Your task to perform on an android device: open app "Venmo" Image 0: 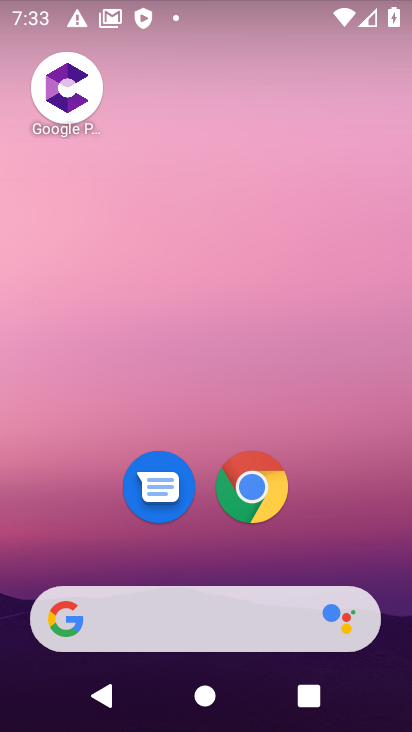
Step 0: drag from (373, 511) to (372, 69)
Your task to perform on an android device: open app "Venmo" Image 1: 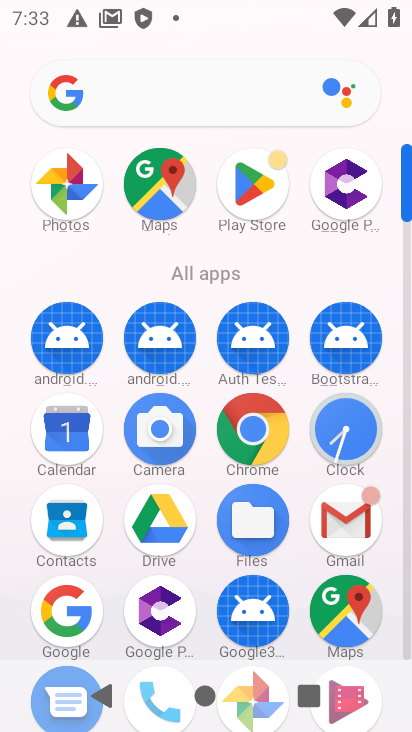
Step 1: click (250, 175)
Your task to perform on an android device: open app "Venmo" Image 2: 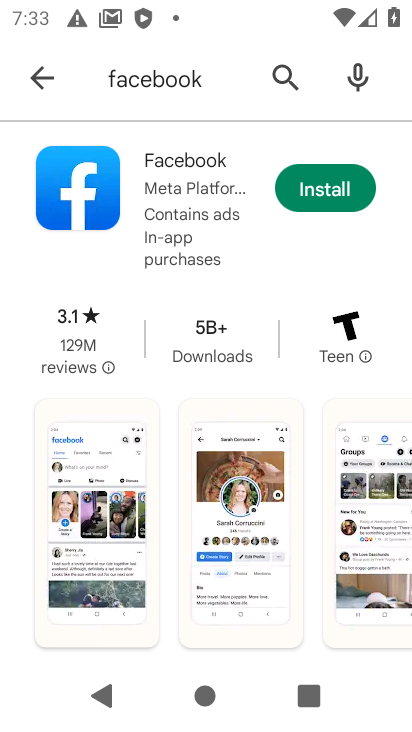
Step 2: click (280, 75)
Your task to perform on an android device: open app "Venmo" Image 3: 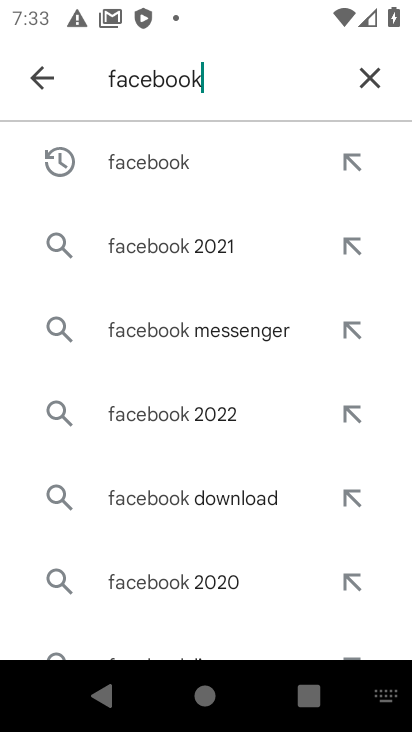
Step 3: click (374, 76)
Your task to perform on an android device: open app "Venmo" Image 4: 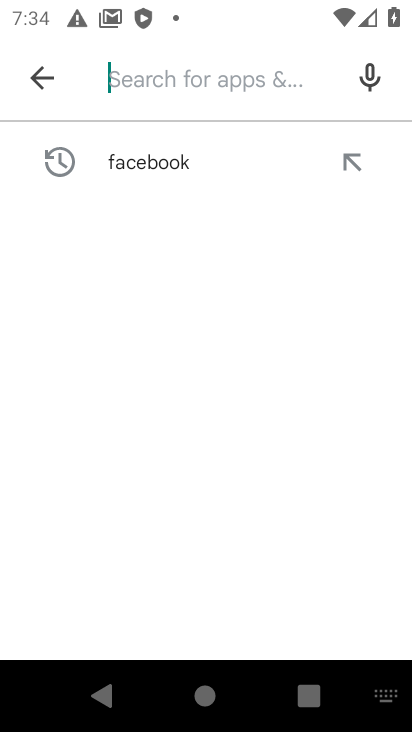
Step 4: type "venmo"
Your task to perform on an android device: open app "Venmo" Image 5: 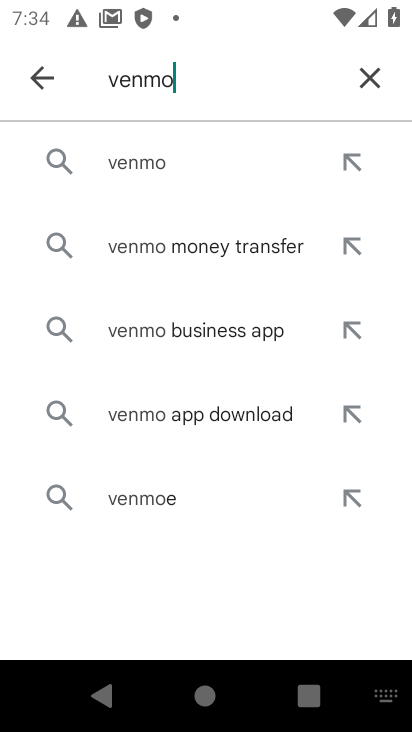
Step 5: click (189, 161)
Your task to perform on an android device: open app "Venmo" Image 6: 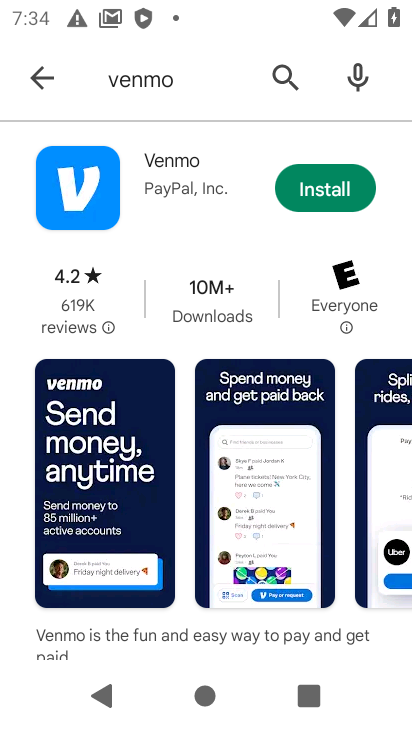
Step 6: task complete